Your task to perform on an android device: Open Chrome and go to settings Image 0: 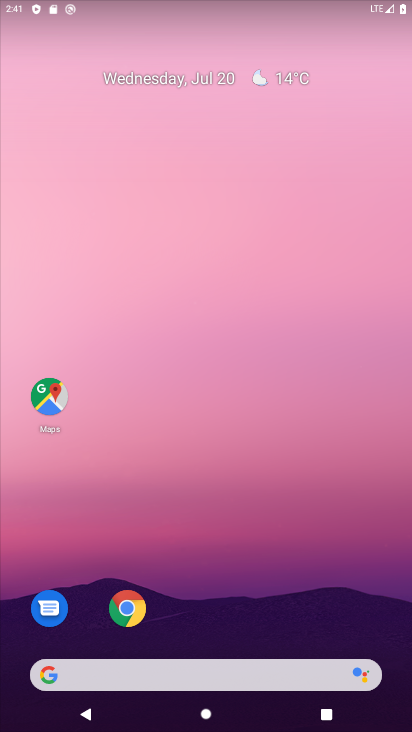
Step 0: click (125, 608)
Your task to perform on an android device: Open Chrome and go to settings Image 1: 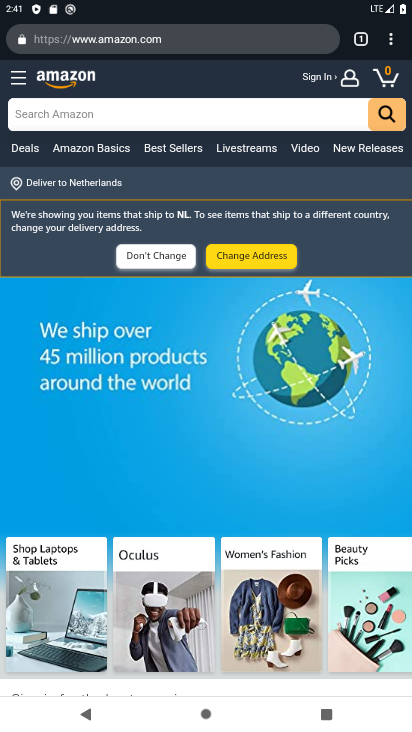
Step 1: click (386, 44)
Your task to perform on an android device: Open Chrome and go to settings Image 2: 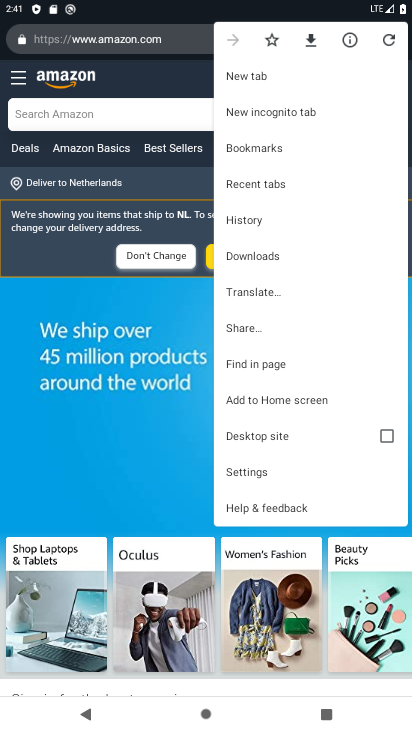
Step 2: click (249, 473)
Your task to perform on an android device: Open Chrome and go to settings Image 3: 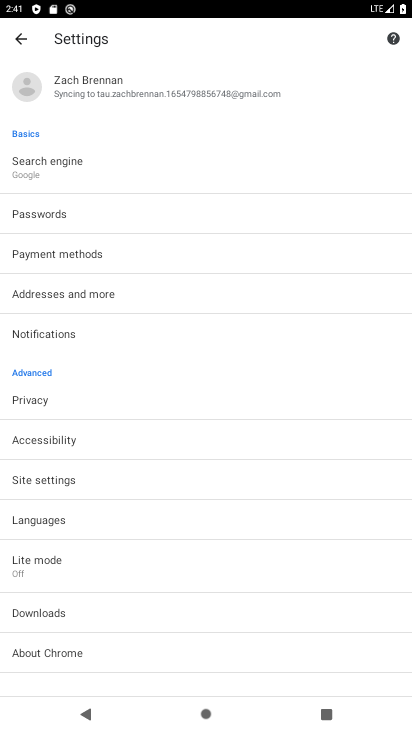
Step 3: task complete